Your task to perform on an android device: check data usage Image 0: 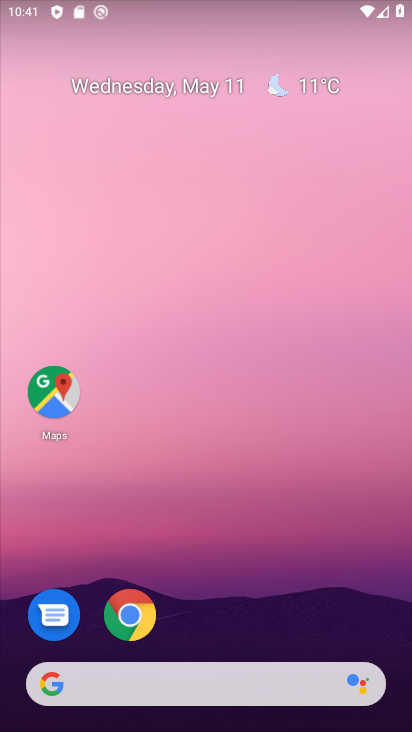
Step 0: click (327, 146)
Your task to perform on an android device: check data usage Image 1: 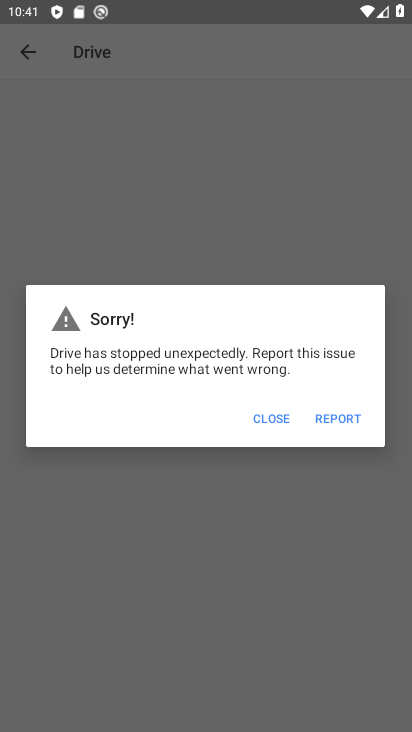
Step 1: press home button
Your task to perform on an android device: check data usage Image 2: 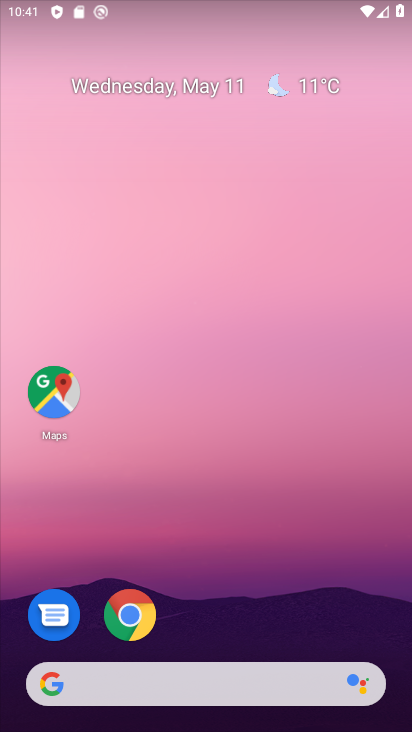
Step 2: drag from (238, 718) to (258, 303)
Your task to perform on an android device: check data usage Image 3: 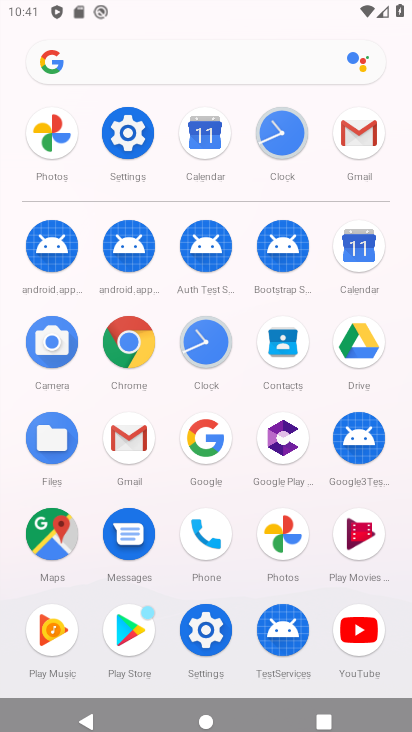
Step 3: click (126, 131)
Your task to perform on an android device: check data usage Image 4: 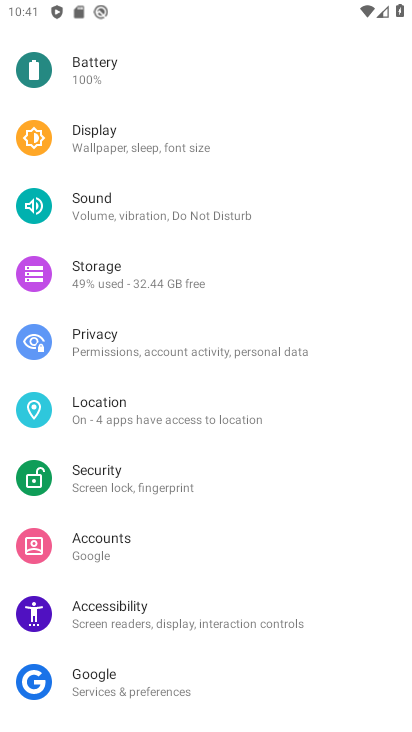
Step 4: drag from (206, 208) to (225, 536)
Your task to perform on an android device: check data usage Image 5: 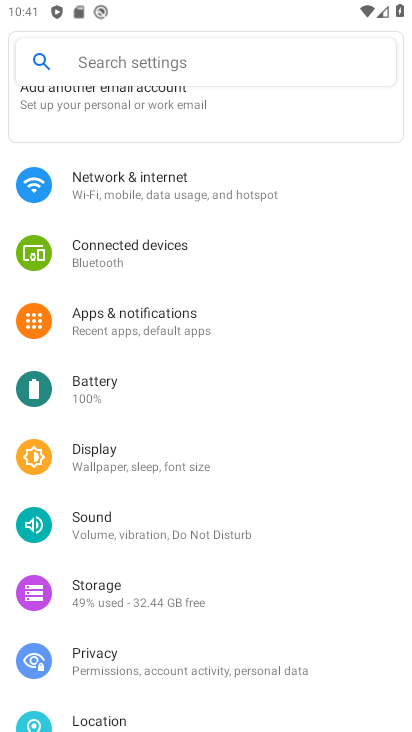
Step 5: click (170, 190)
Your task to perform on an android device: check data usage Image 6: 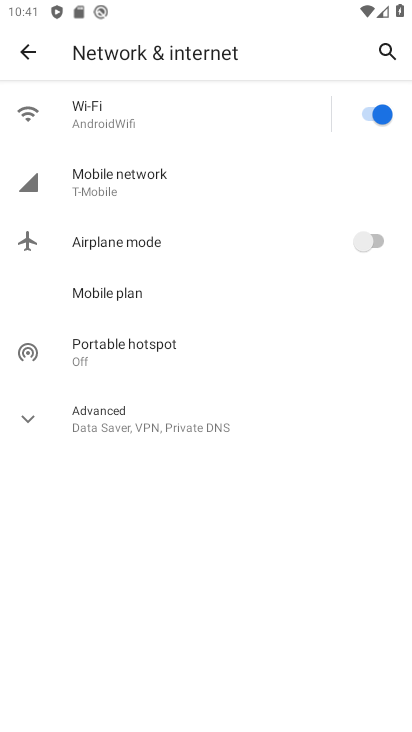
Step 6: click (130, 176)
Your task to perform on an android device: check data usage Image 7: 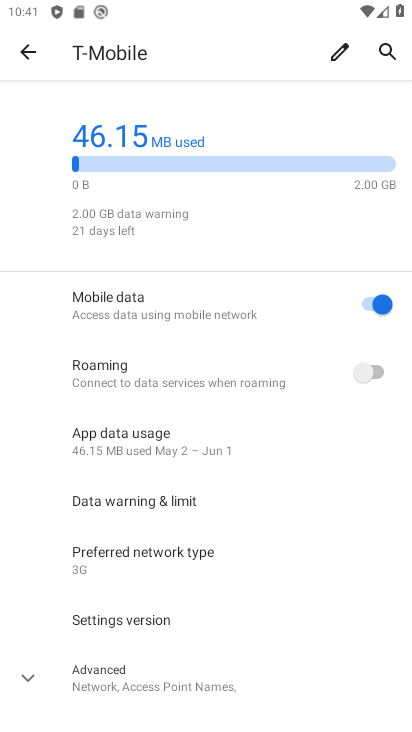
Step 7: task complete